Your task to perform on an android device: Open the map Image 0: 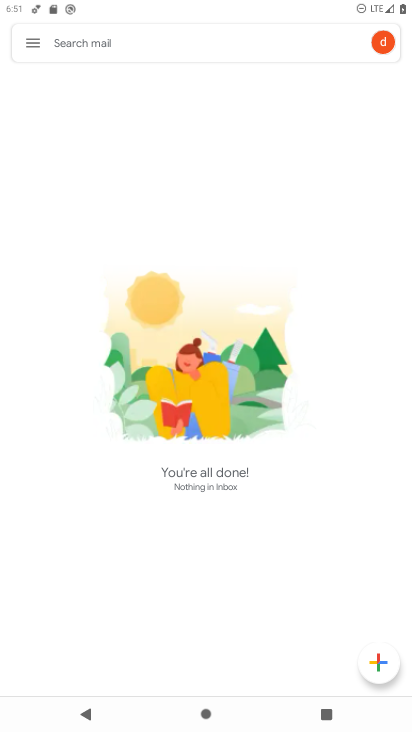
Step 0: press home button
Your task to perform on an android device: Open the map Image 1: 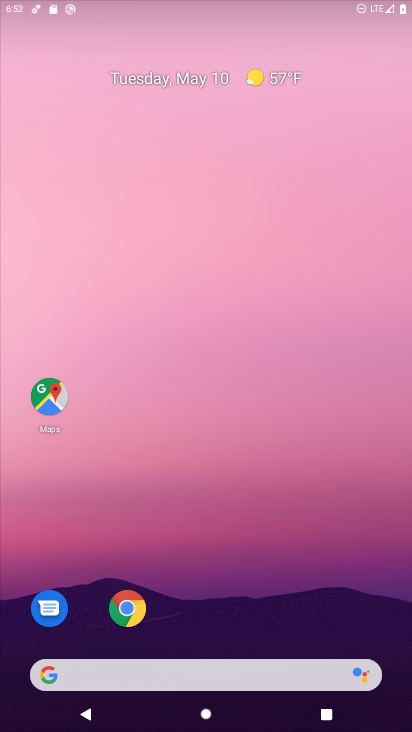
Step 1: drag from (343, 615) to (287, 62)
Your task to perform on an android device: Open the map Image 2: 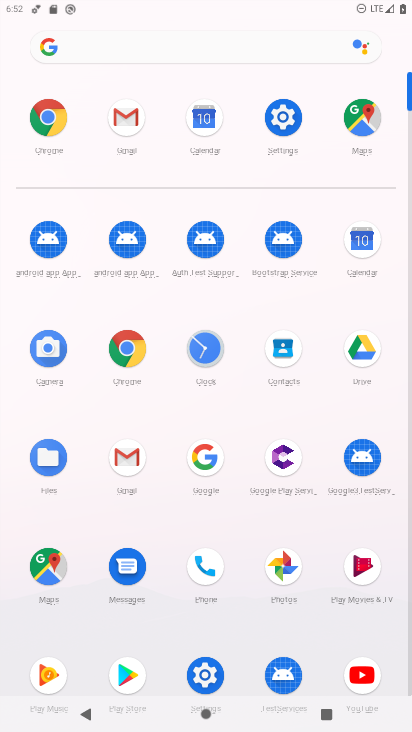
Step 2: click (355, 133)
Your task to perform on an android device: Open the map Image 3: 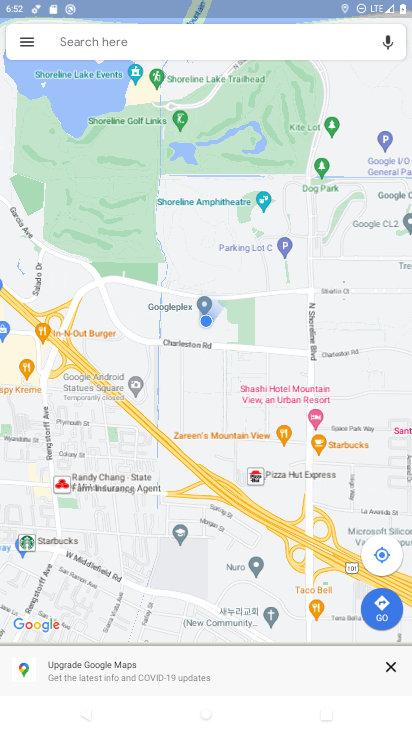
Step 3: task complete